Your task to perform on an android device: How big is a giraffe? Image 0: 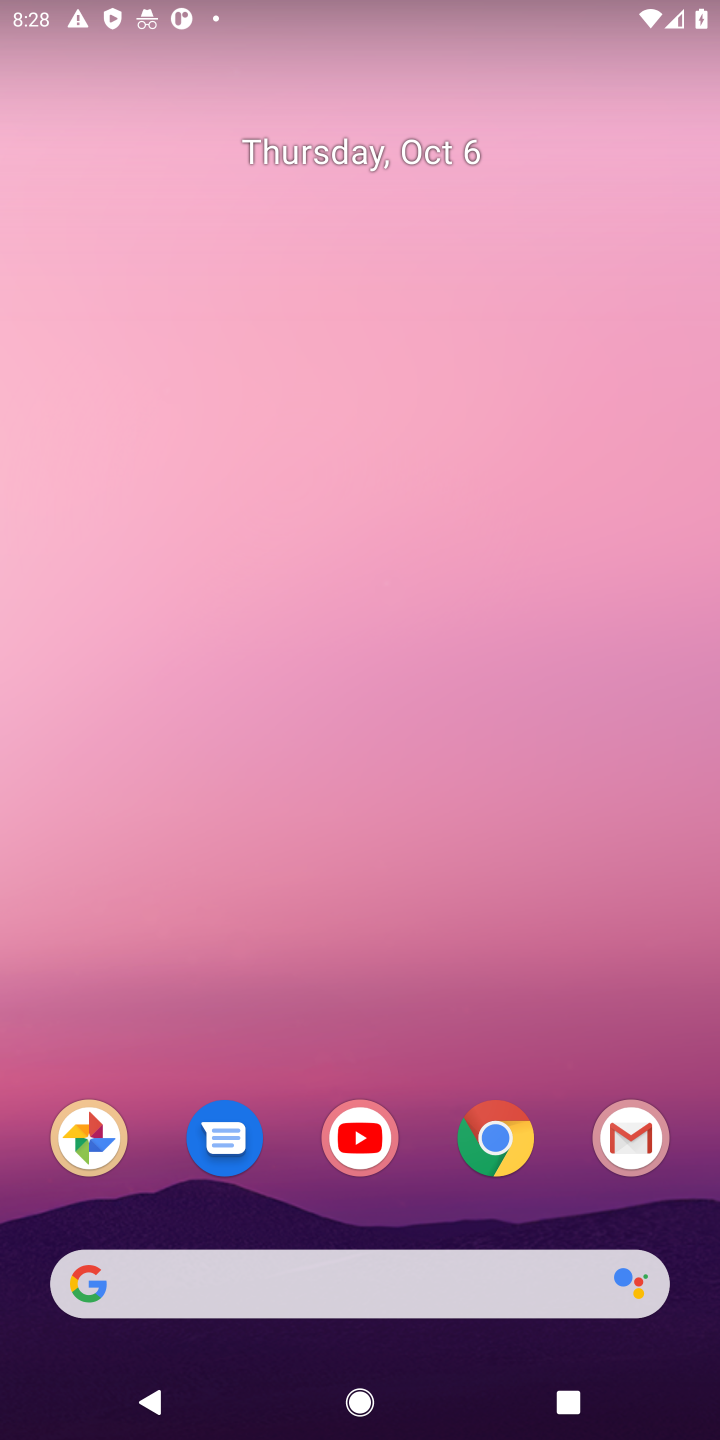
Step 0: click (497, 1131)
Your task to perform on an android device: How big is a giraffe? Image 1: 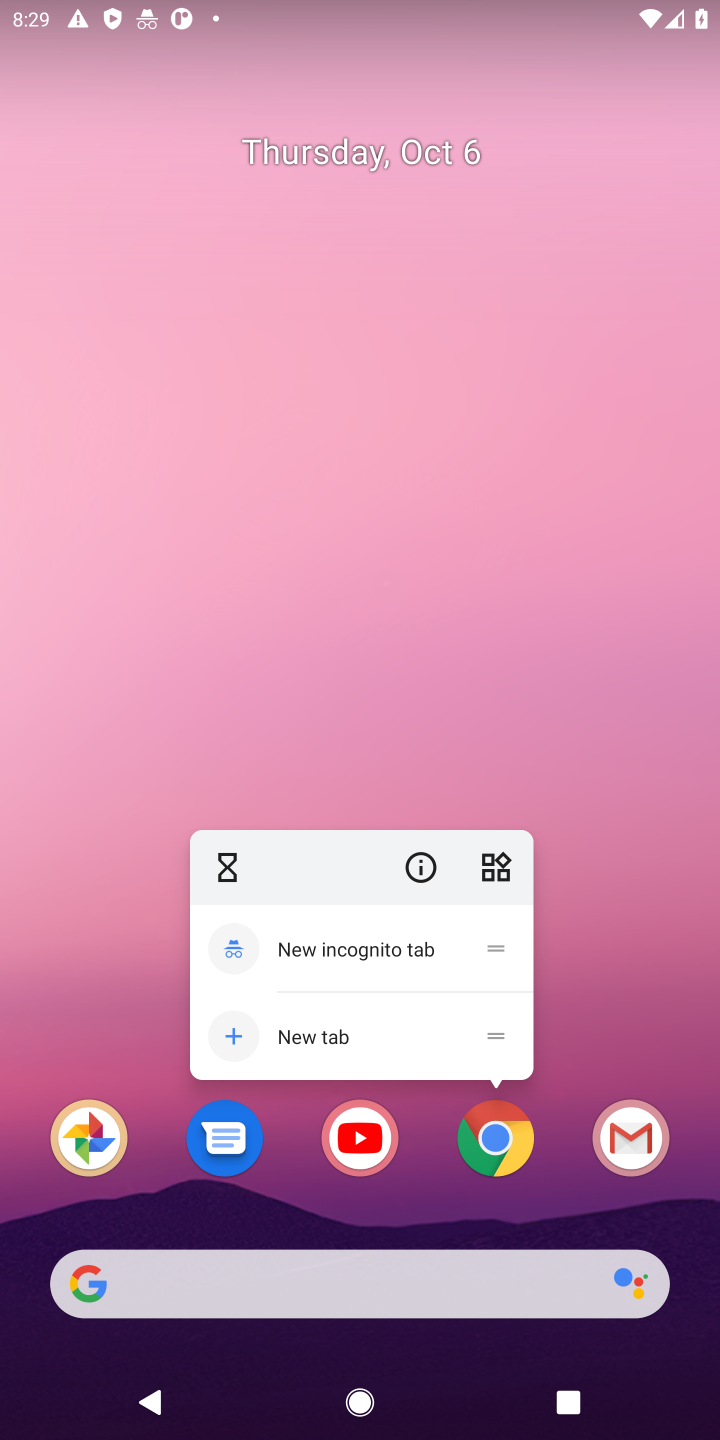
Step 1: click (505, 1162)
Your task to perform on an android device: How big is a giraffe? Image 2: 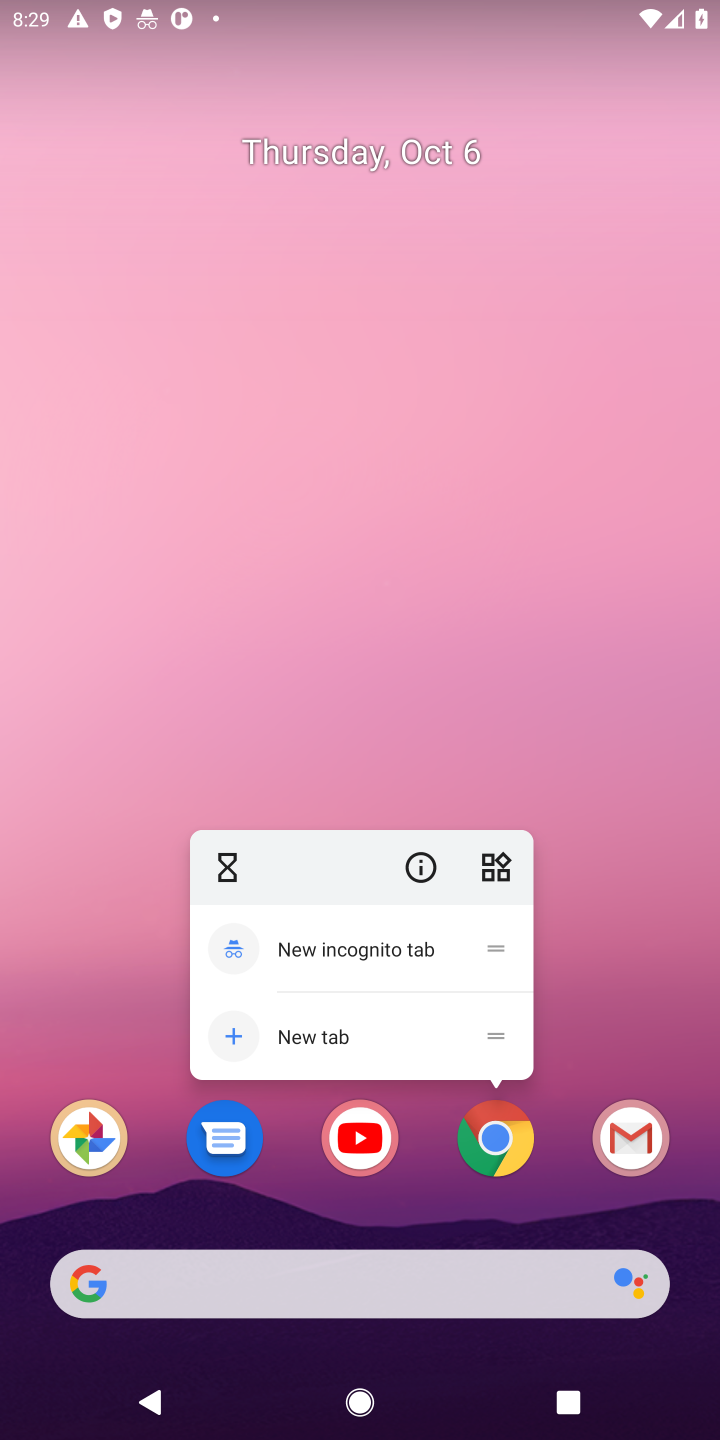
Step 2: click (490, 1133)
Your task to perform on an android device: How big is a giraffe? Image 3: 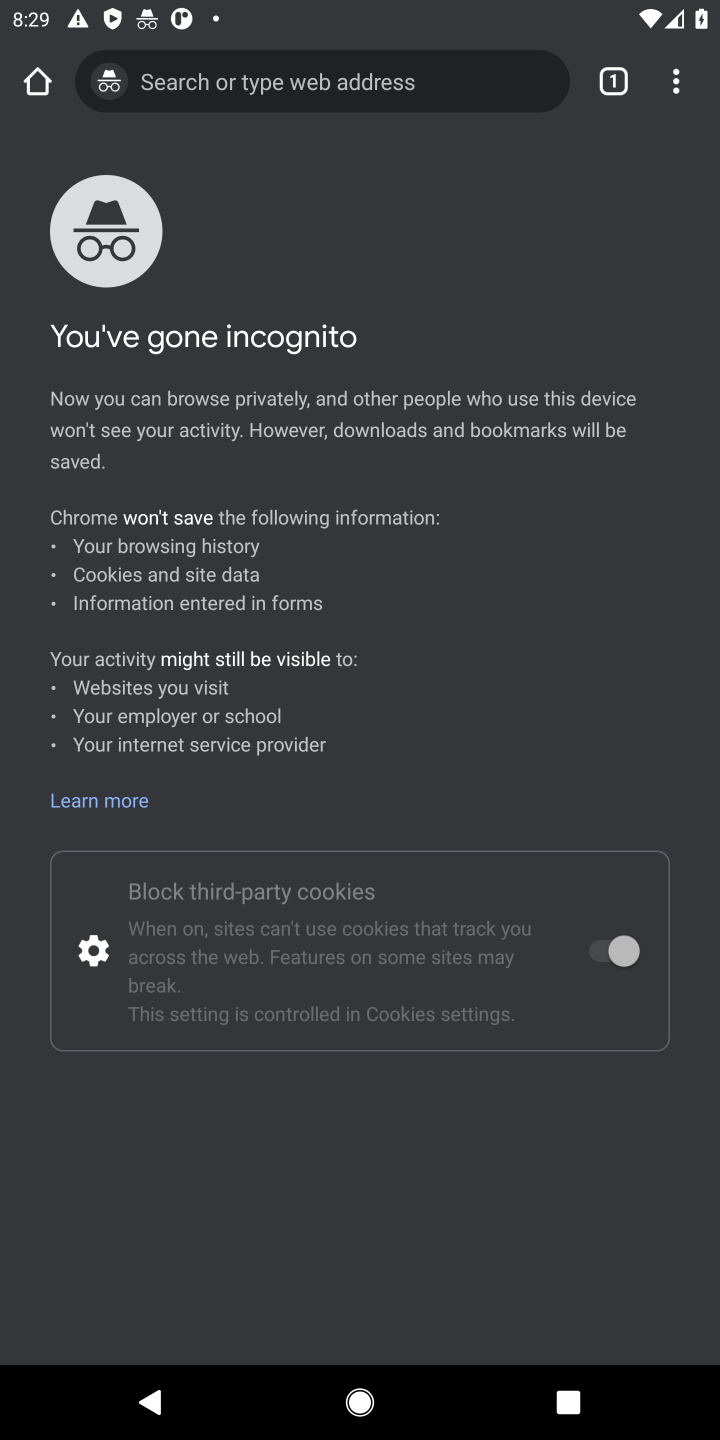
Step 3: drag from (675, 73) to (376, 150)
Your task to perform on an android device: How big is a giraffe? Image 4: 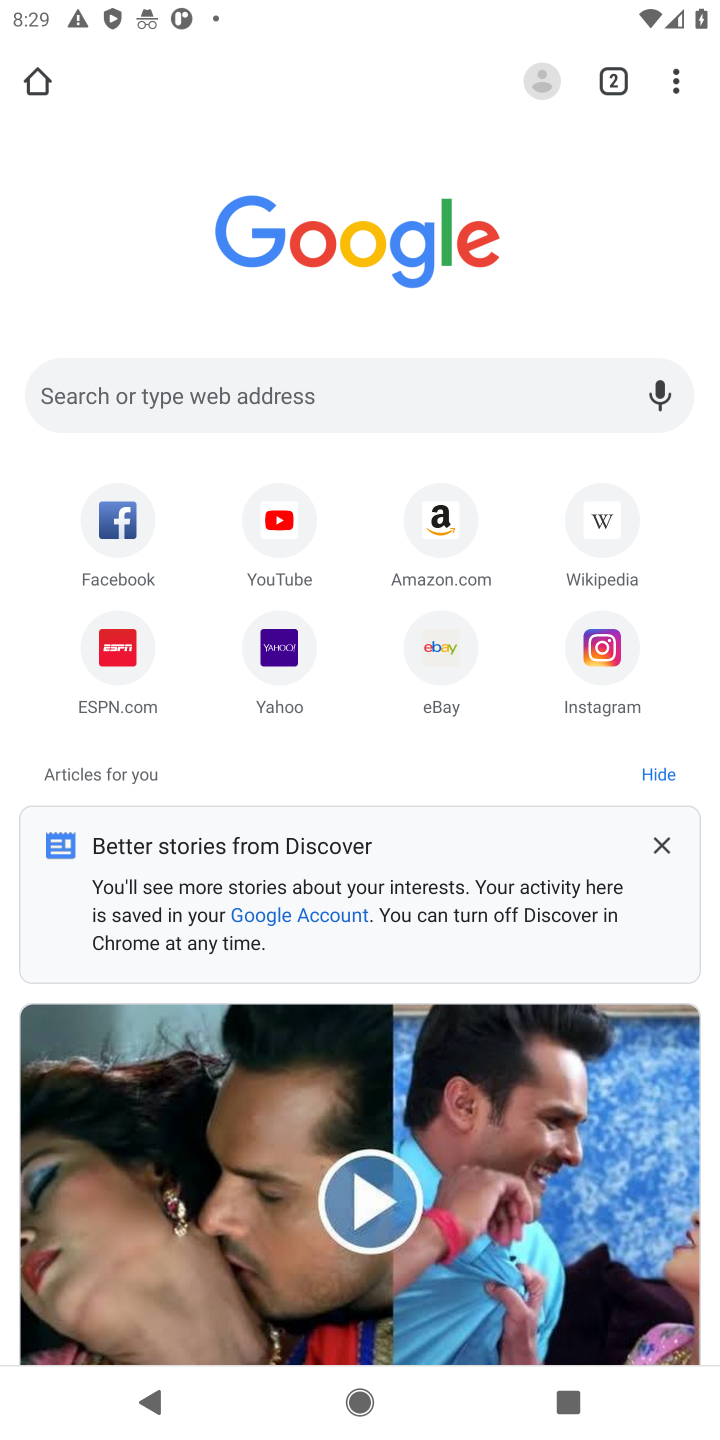
Step 4: click (194, 396)
Your task to perform on an android device: How big is a giraffe? Image 5: 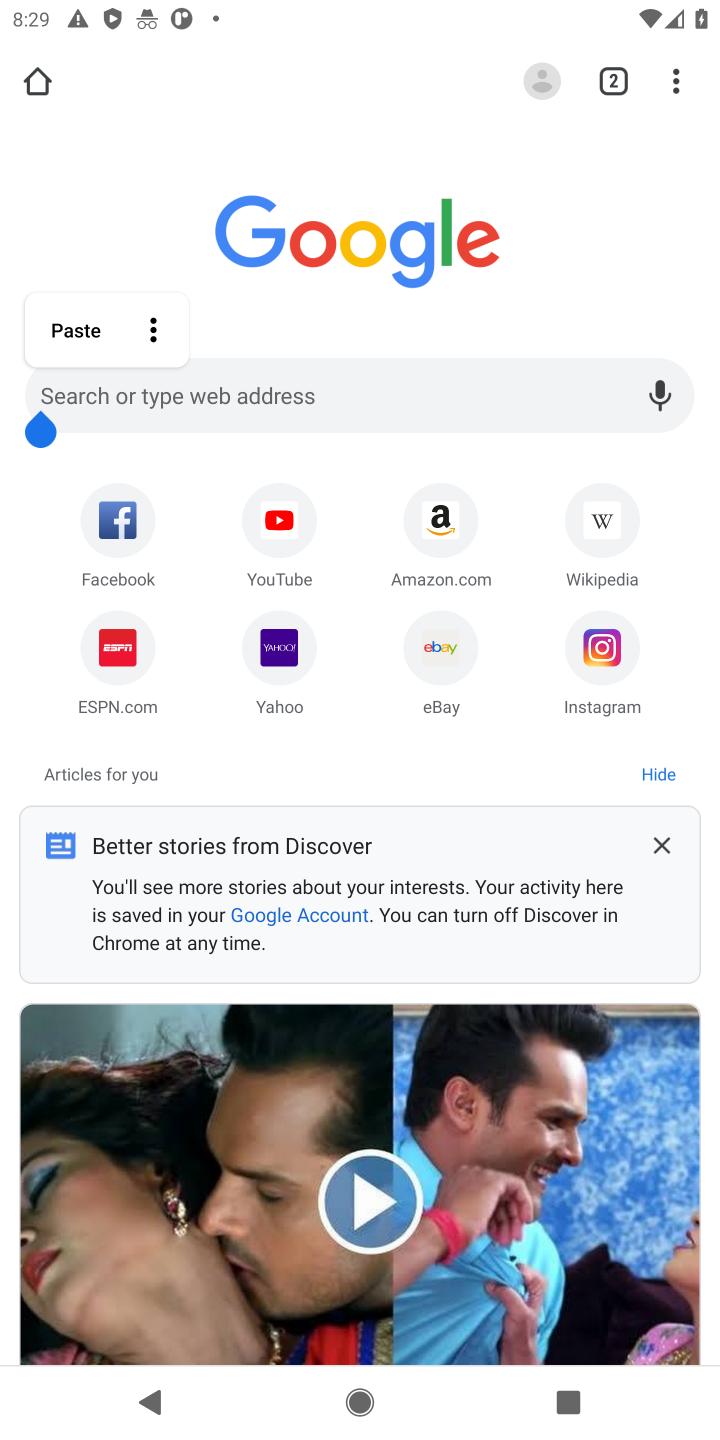
Step 5: click (194, 396)
Your task to perform on an android device: How big is a giraffe? Image 6: 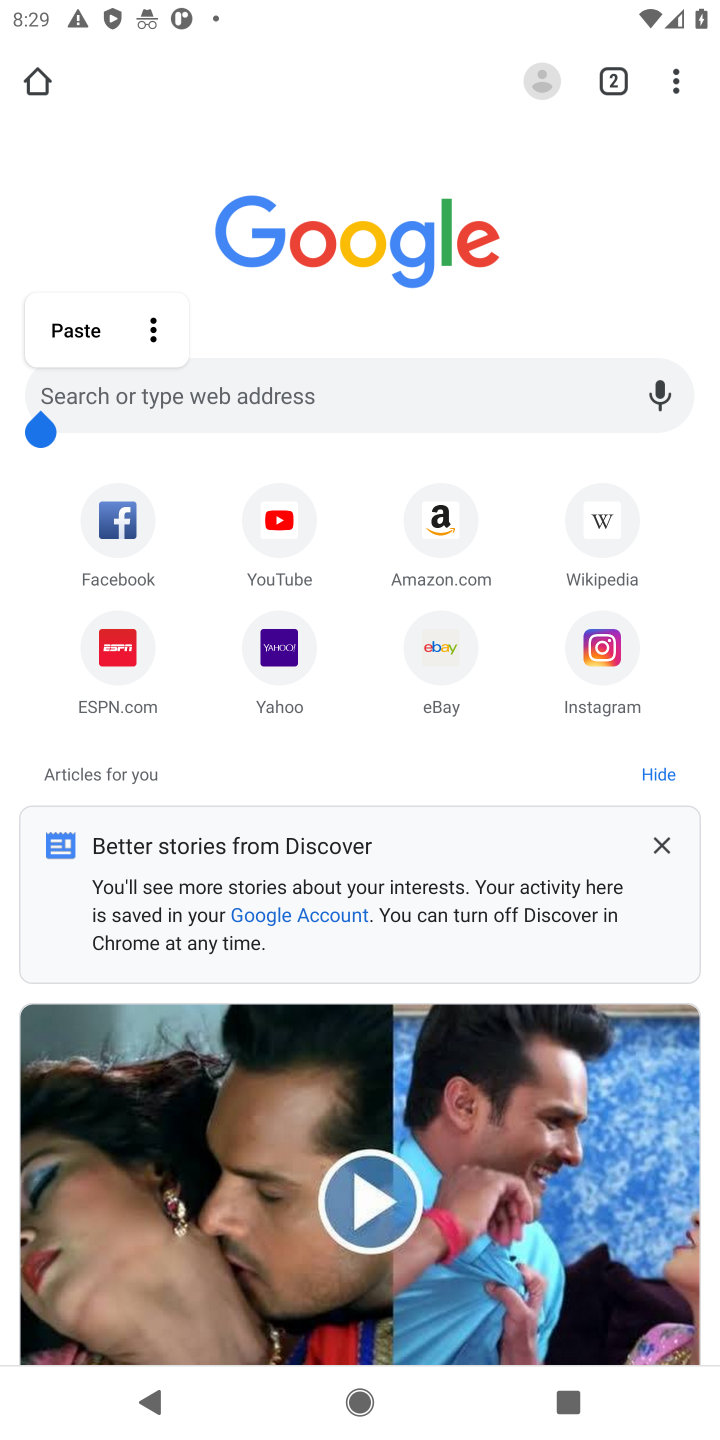
Step 6: click (108, 390)
Your task to perform on an android device: How big is a giraffe? Image 7: 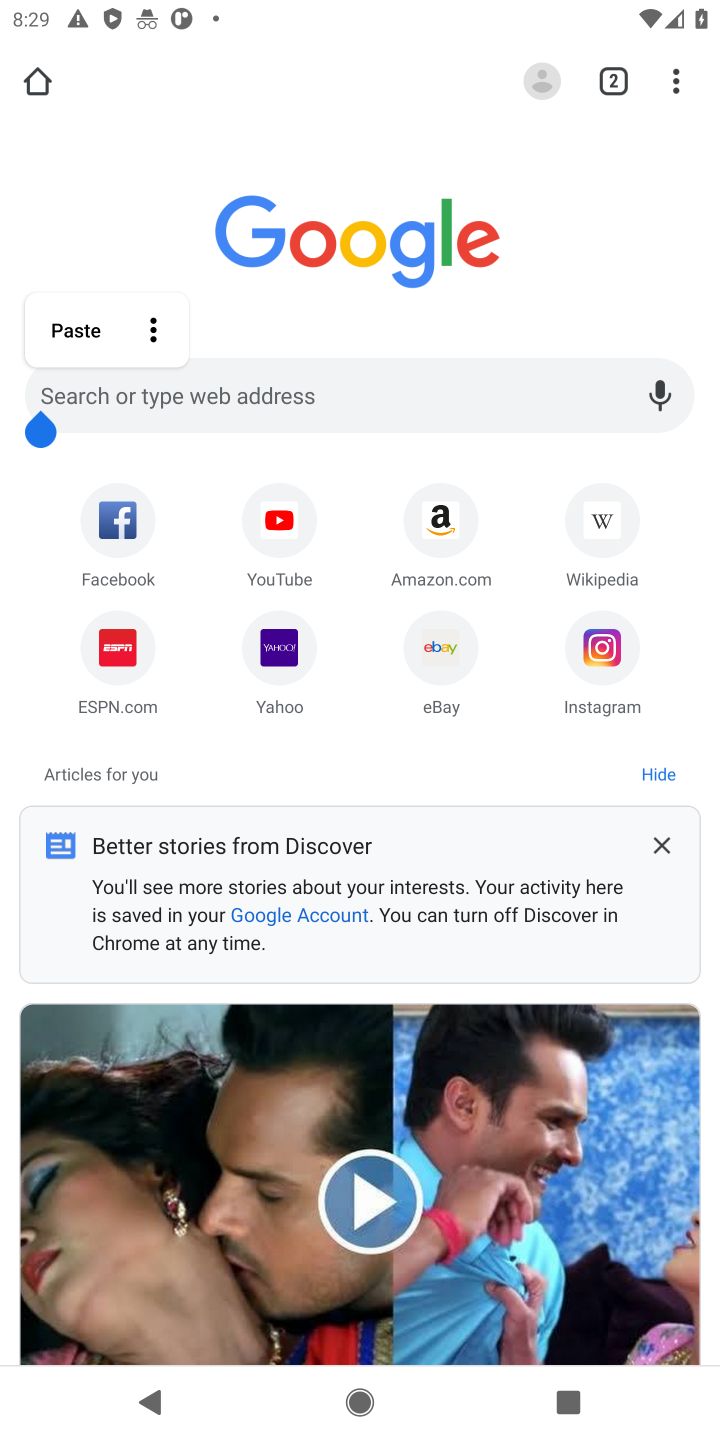
Step 7: click (296, 390)
Your task to perform on an android device: How big is a giraffe? Image 8: 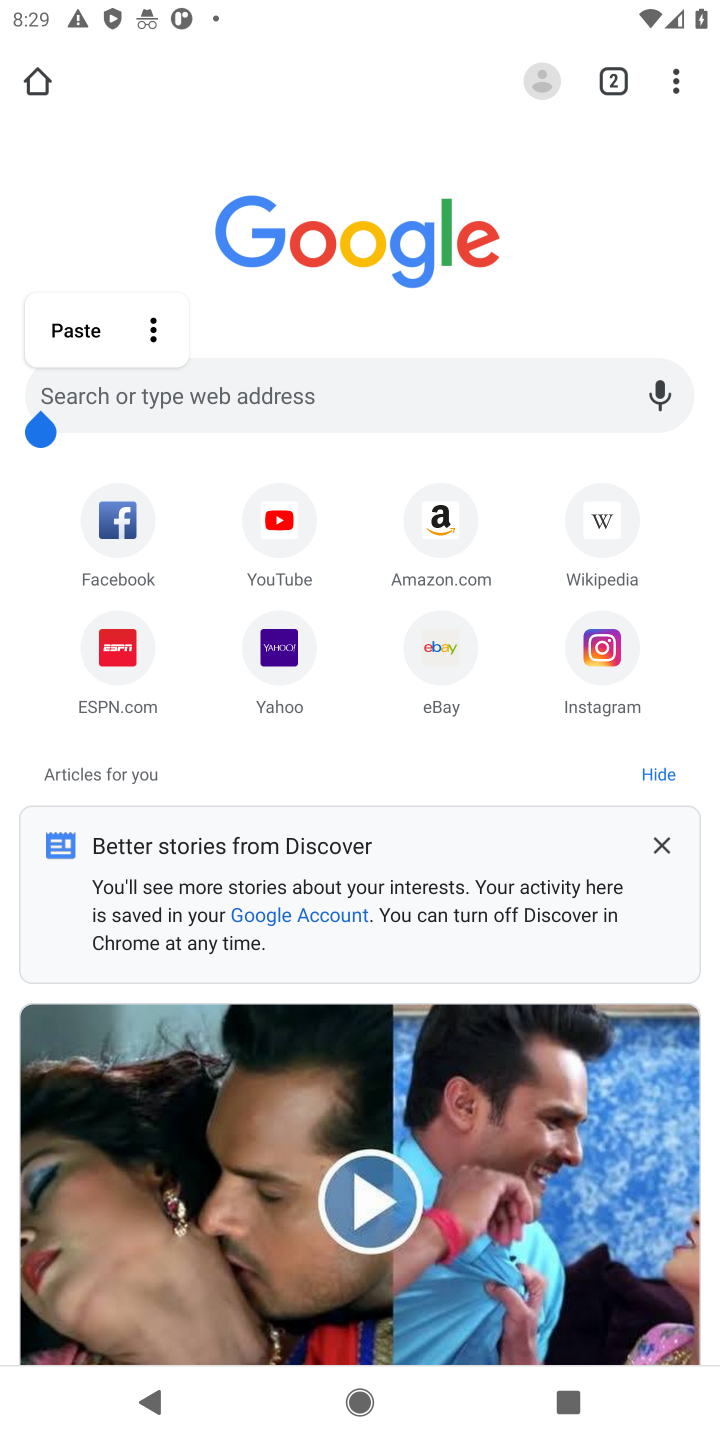
Step 8: click (65, 394)
Your task to perform on an android device: How big is a giraffe? Image 9: 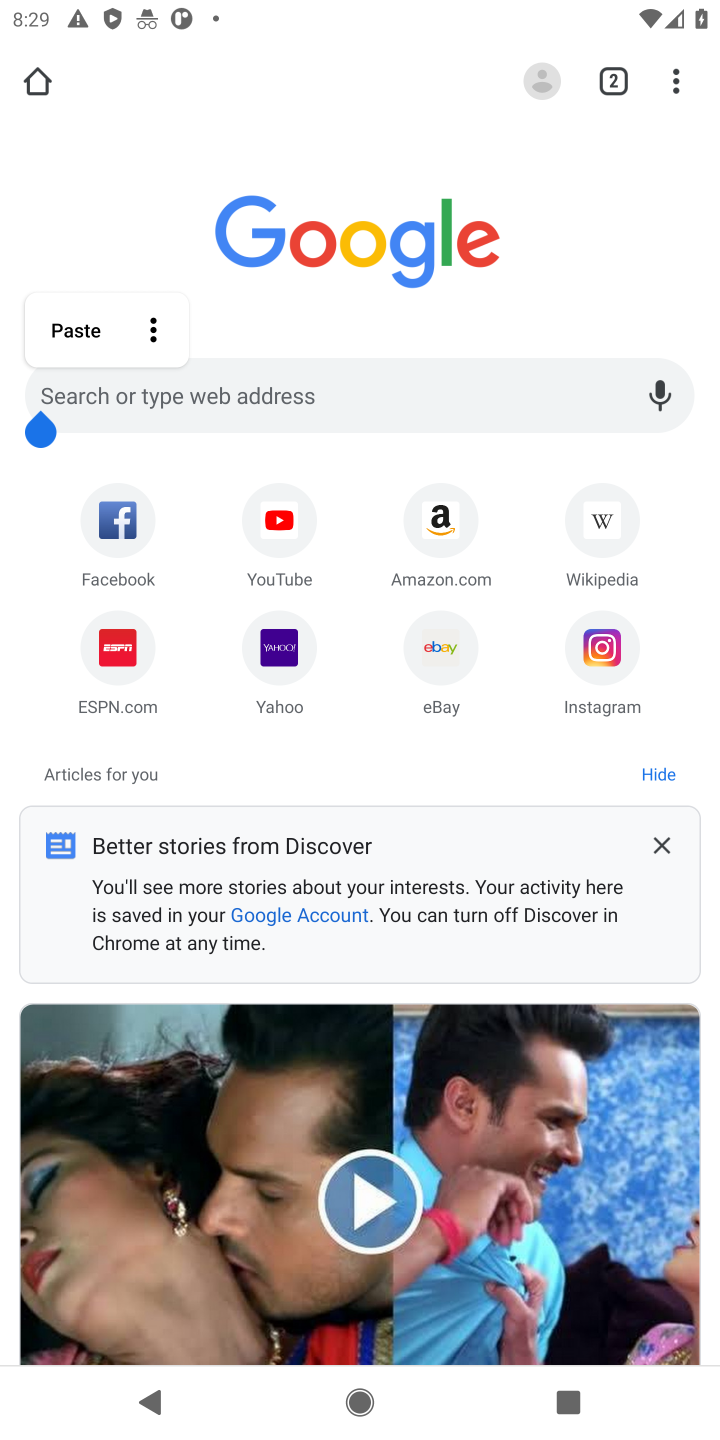
Step 9: click (65, 394)
Your task to perform on an android device: How big is a giraffe? Image 10: 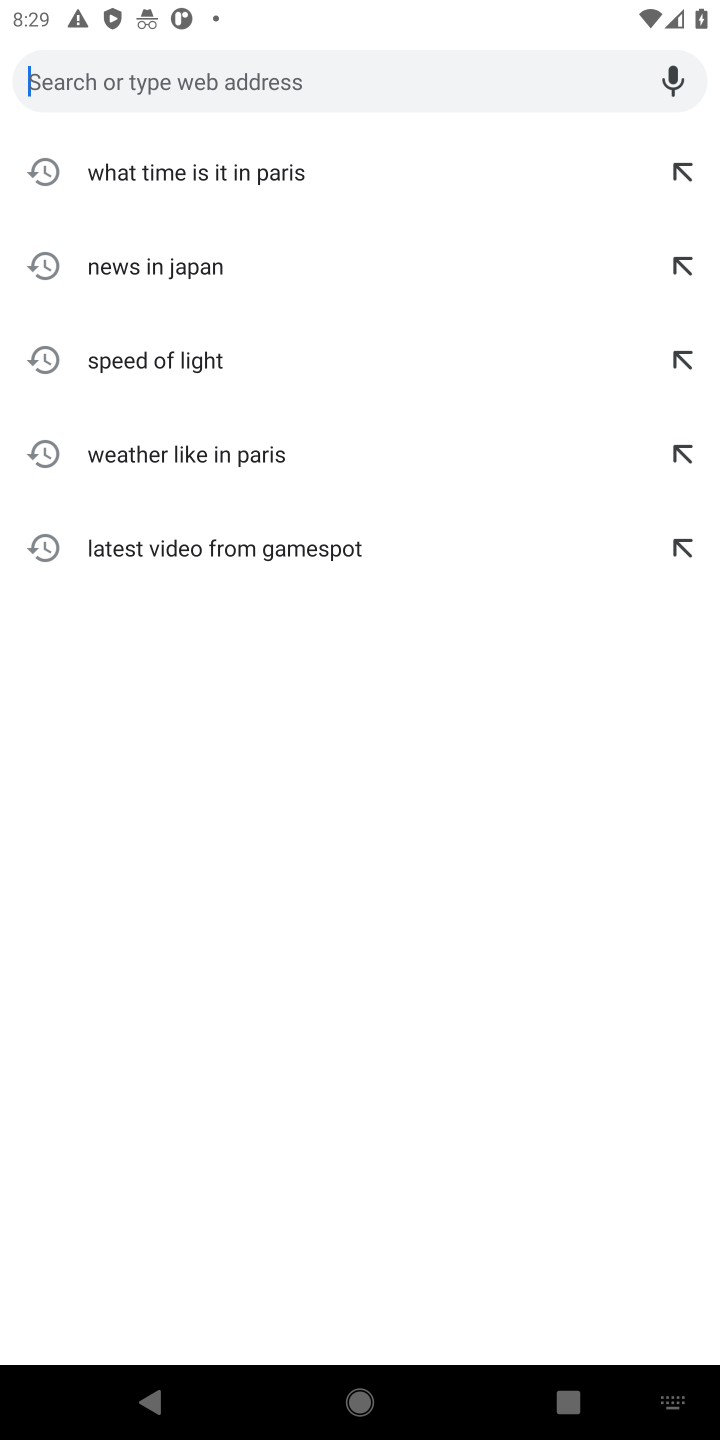
Step 10: type "How big is a giraffe"
Your task to perform on an android device: How big is a giraffe? Image 11: 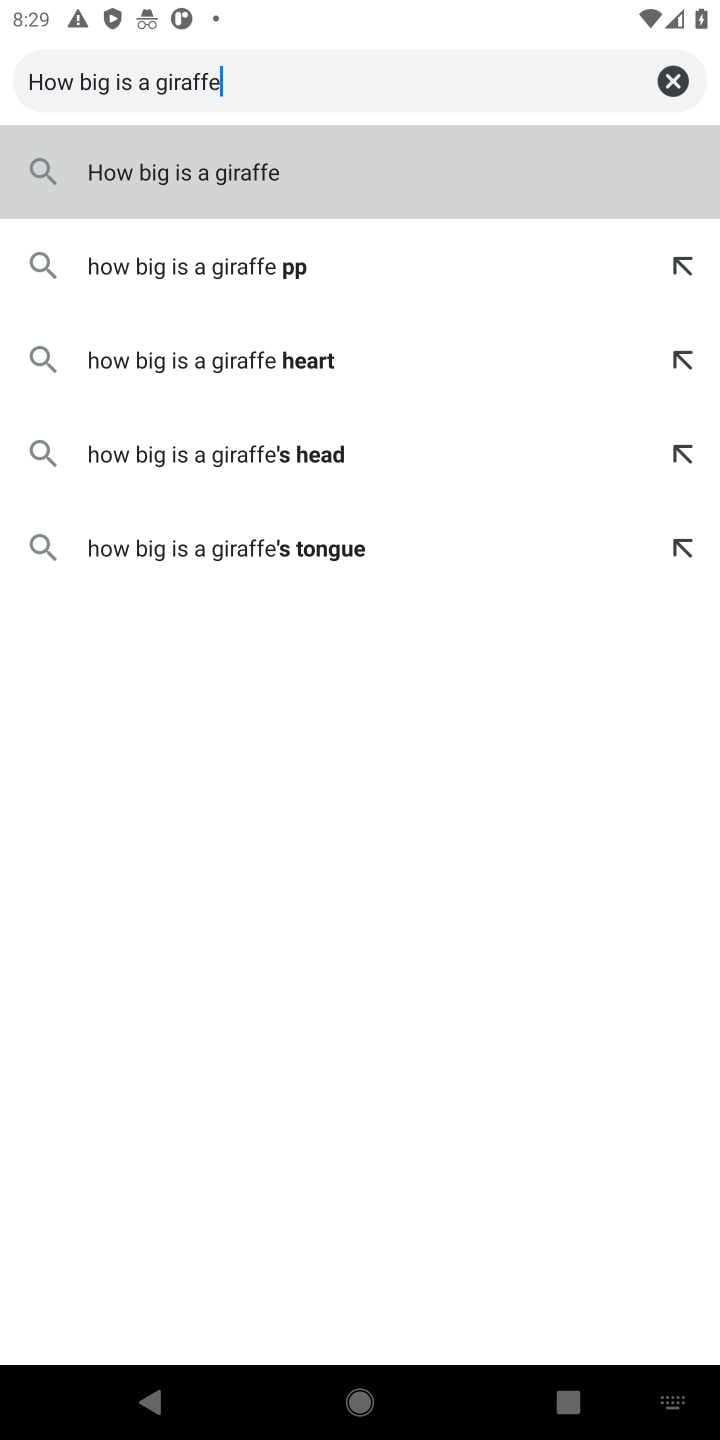
Step 11: click (206, 170)
Your task to perform on an android device: How big is a giraffe? Image 12: 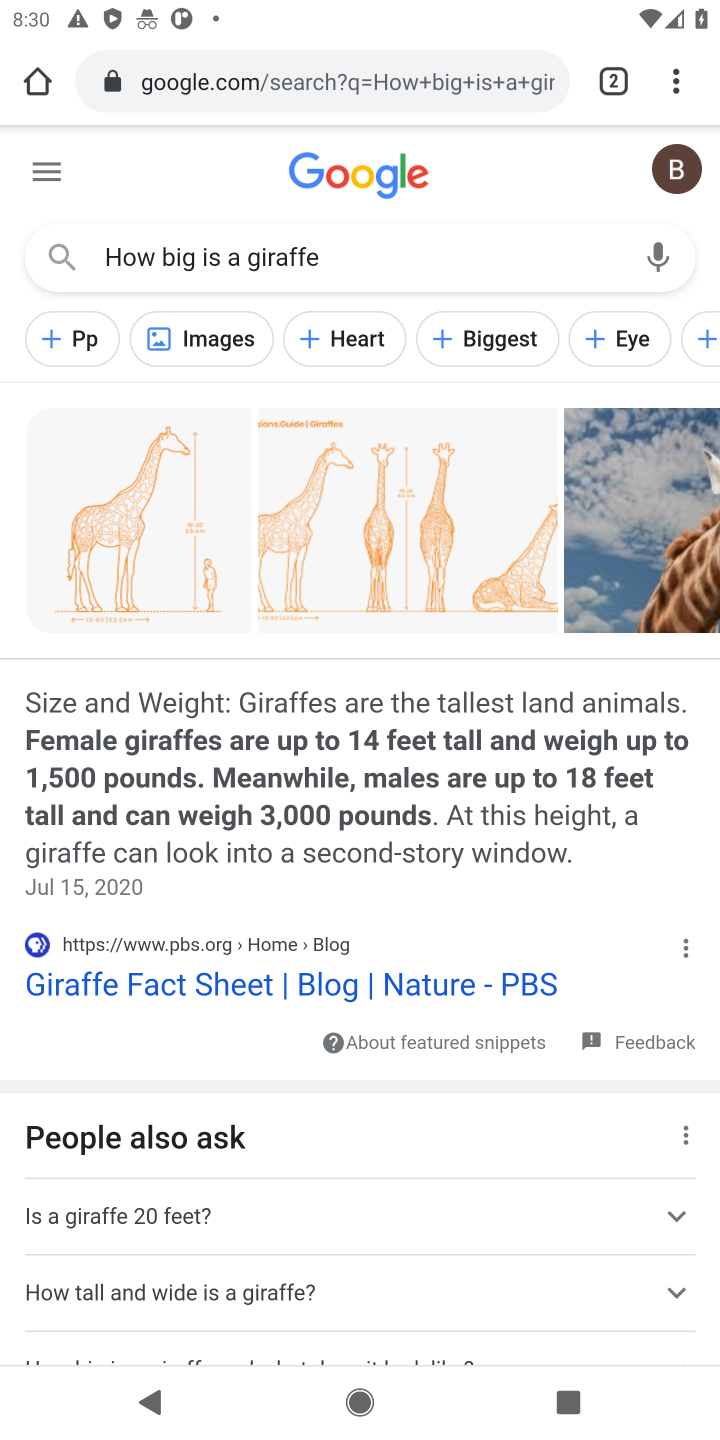
Step 12: click (203, 981)
Your task to perform on an android device: How big is a giraffe? Image 13: 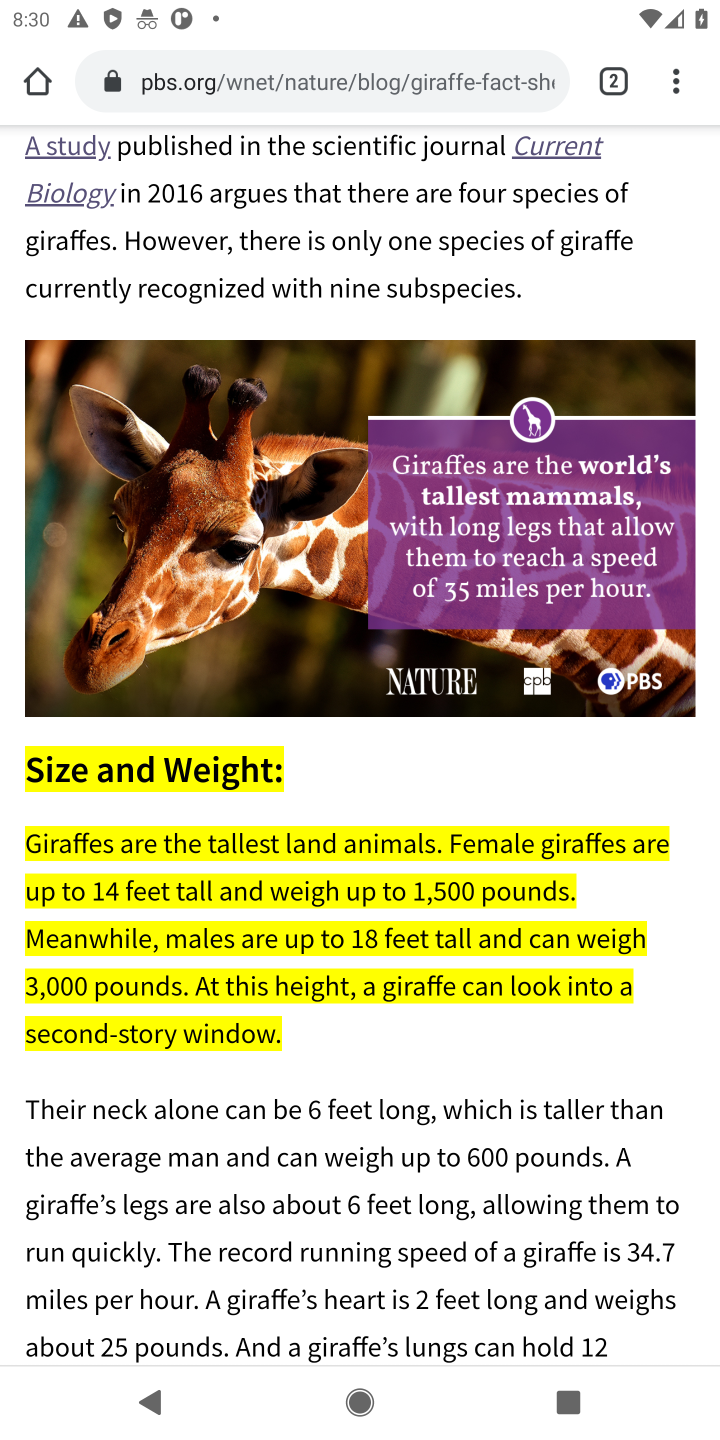
Step 13: task complete